Your task to perform on an android device: turn on priority inbox in the gmail app Image 0: 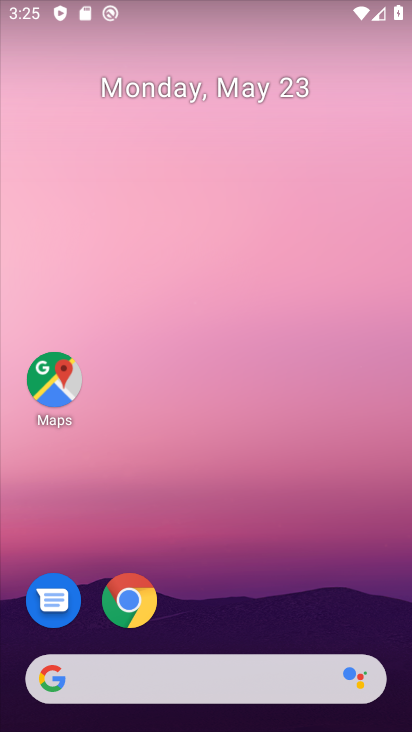
Step 0: drag from (347, 632) to (347, 26)
Your task to perform on an android device: turn on priority inbox in the gmail app Image 1: 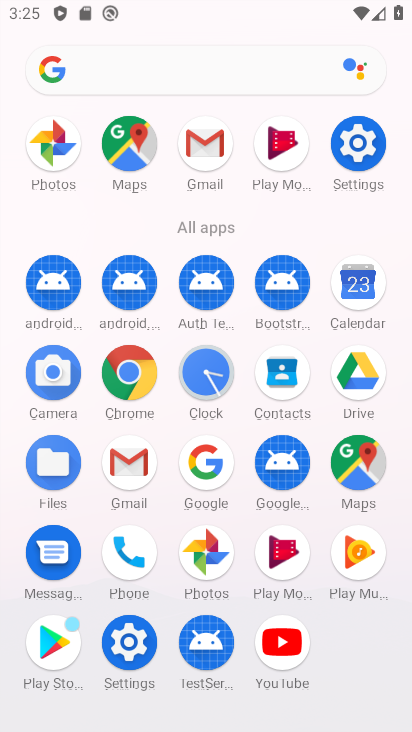
Step 1: click (204, 160)
Your task to perform on an android device: turn on priority inbox in the gmail app Image 2: 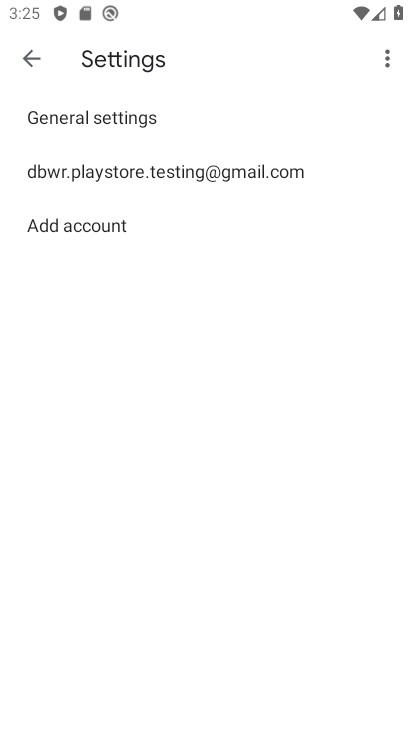
Step 2: click (126, 173)
Your task to perform on an android device: turn on priority inbox in the gmail app Image 3: 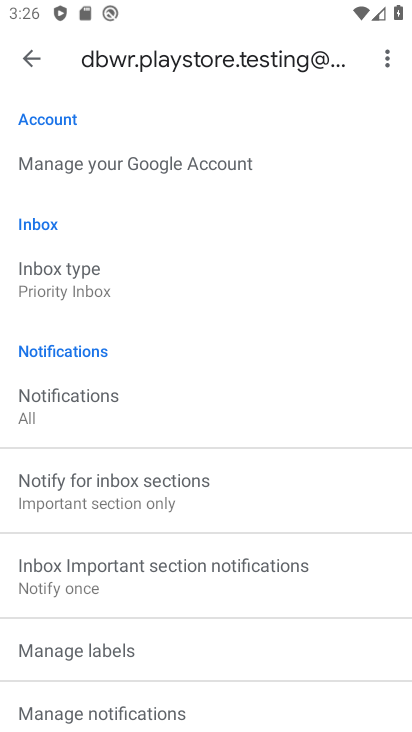
Step 3: click (65, 280)
Your task to perform on an android device: turn on priority inbox in the gmail app Image 4: 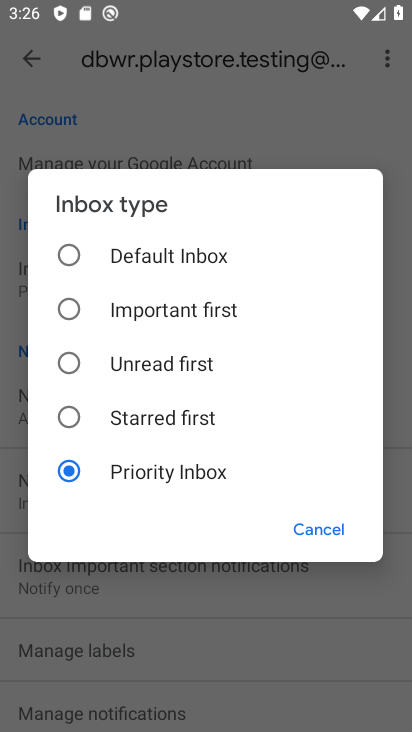
Step 4: task complete